Your task to perform on an android device: search for starred emails in the gmail app Image 0: 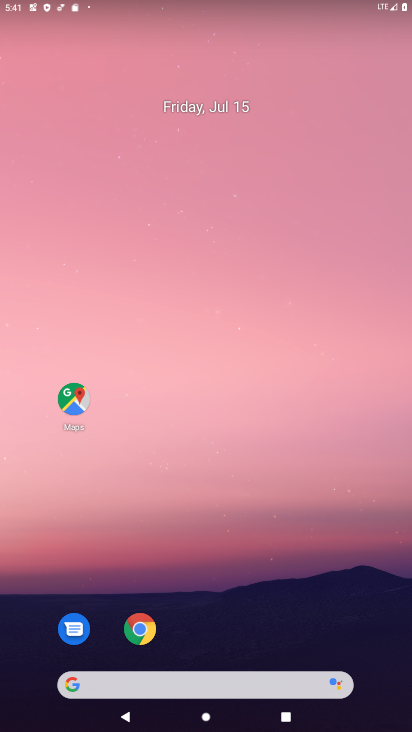
Step 0: press home button
Your task to perform on an android device: search for starred emails in the gmail app Image 1: 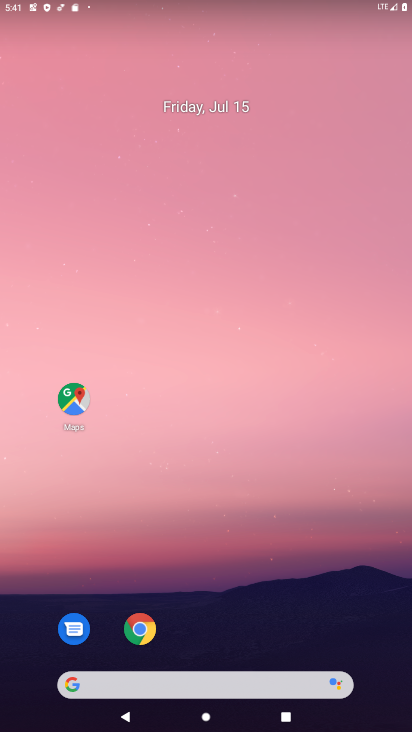
Step 1: drag from (192, 655) to (128, 10)
Your task to perform on an android device: search for starred emails in the gmail app Image 2: 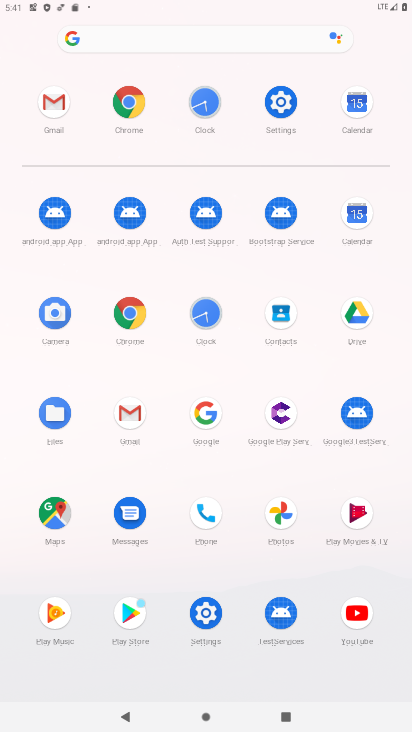
Step 2: click (48, 113)
Your task to perform on an android device: search for starred emails in the gmail app Image 3: 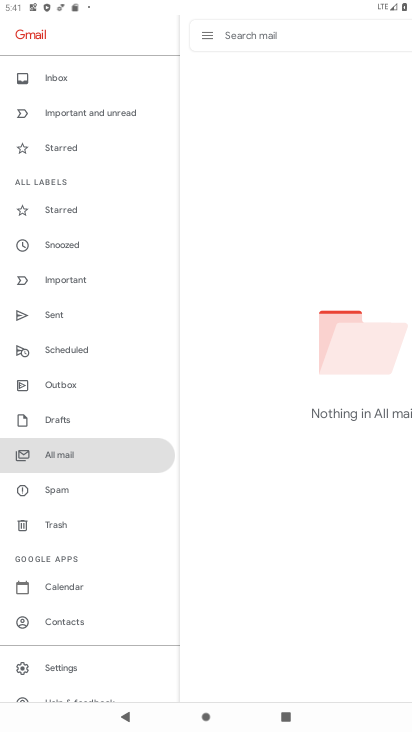
Step 3: click (61, 151)
Your task to perform on an android device: search for starred emails in the gmail app Image 4: 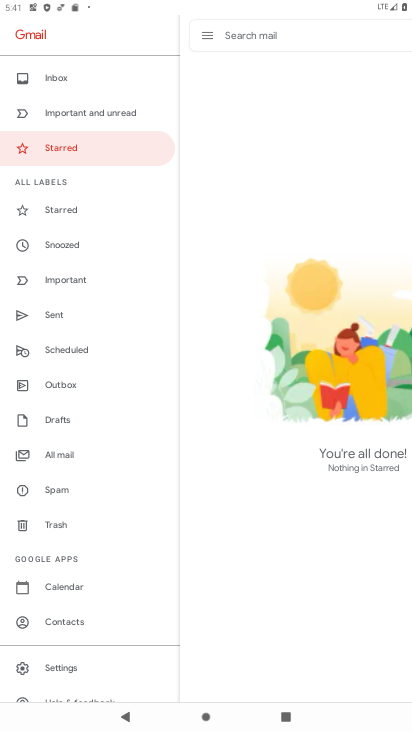
Step 4: click (61, 151)
Your task to perform on an android device: search for starred emails in the gmail app Image 5: 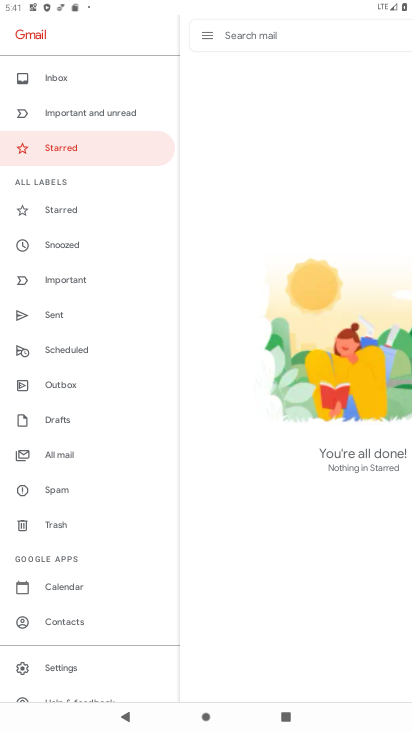
Step 5: task complete